Your task to perform on an android device: Go to Amazon Image 0: 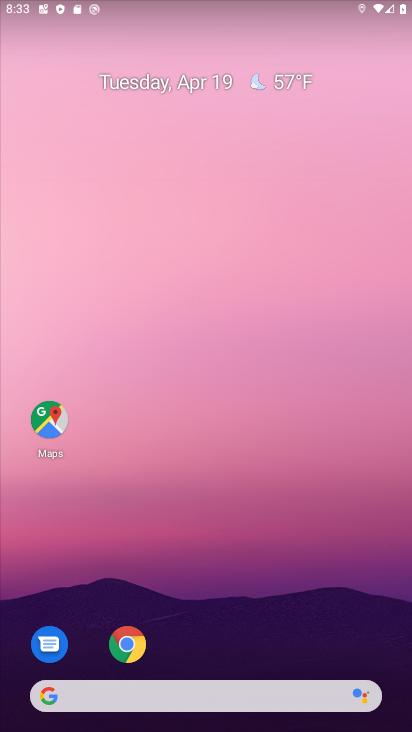
Step 0: click (119, 655)
Your task to perform on an android device: Go to Amazon Image 1: 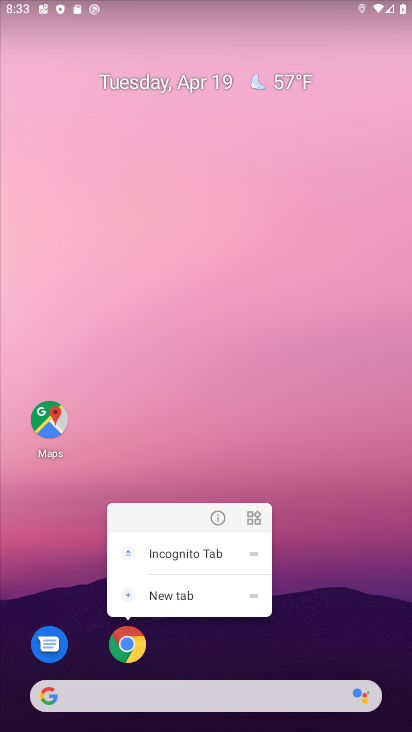
Step 1: click (119, 643)
Your task to perform on an android device: Go to Amazon Image 2: 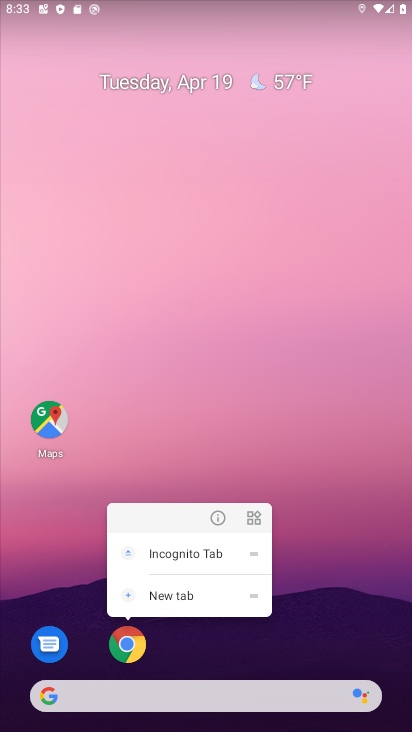
Step 2: click (129, 638)
Your task to perform on an android device: Go to Amazon Image 3: 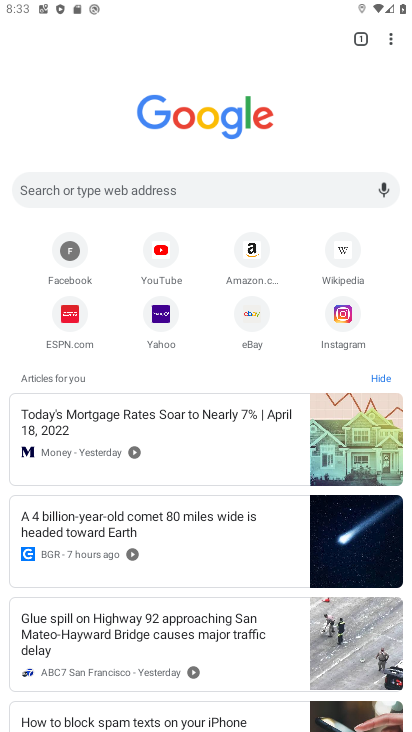
Step 3: click (262, 245)
Your task to perform on an android device: Go to Amazon Image 4: 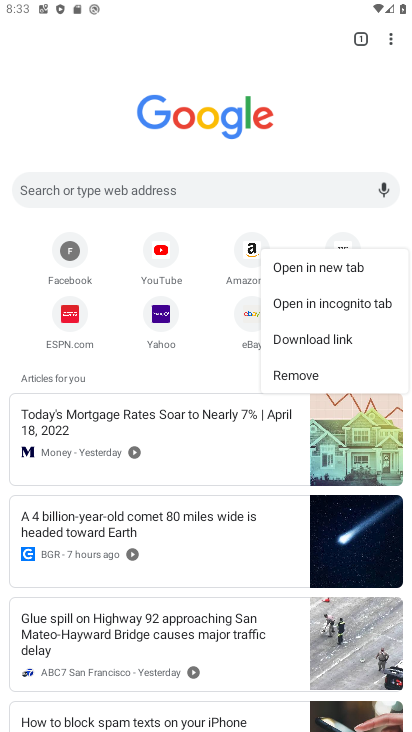
Step 4: click (253, 247)
Your task to perform on an android device: Go to Amazon Image 5: 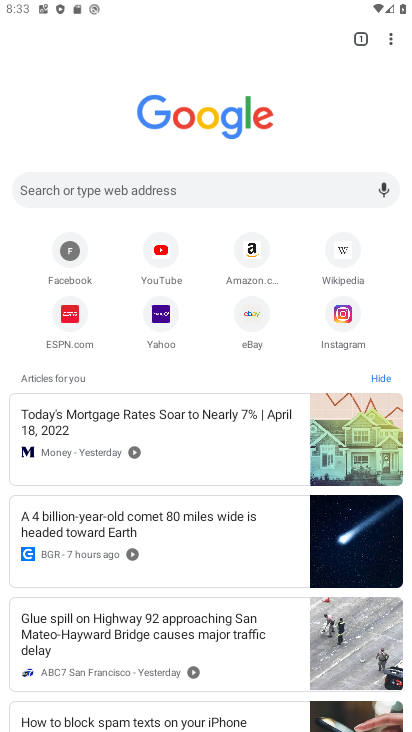
Step 5: click (252, 275)
Your task to perform on an android device: Go to Amazon Image 6: 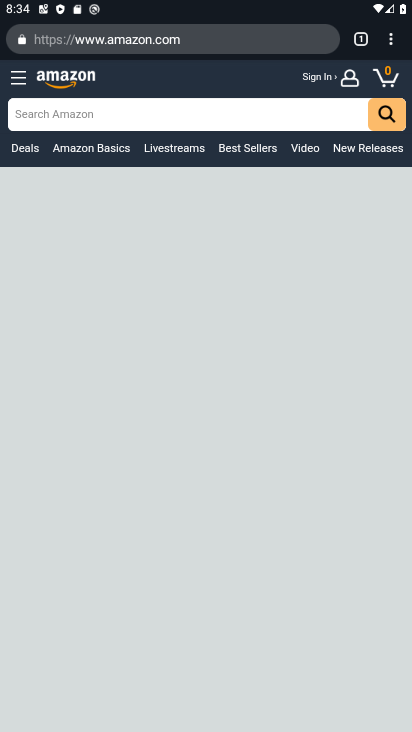
Step 6: task complete